Your task to perform on an android device: find photos in the google photos app Image 0: 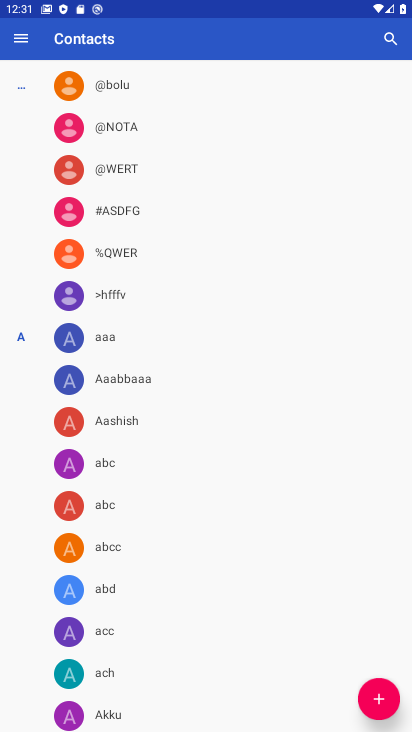
Step 0: press home button
Your task to perform on an android device: find photos in the google photos app Image 1: 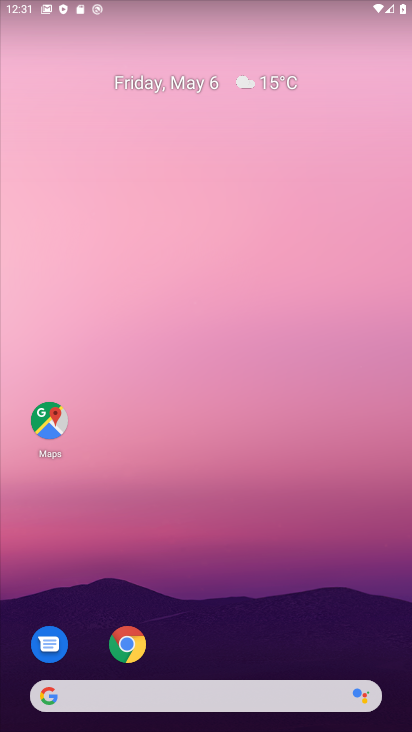
Step 1: drag from (173, 643) to (256, 289)
Your task to perform on an android device: find photos in the google photos app Image 2: 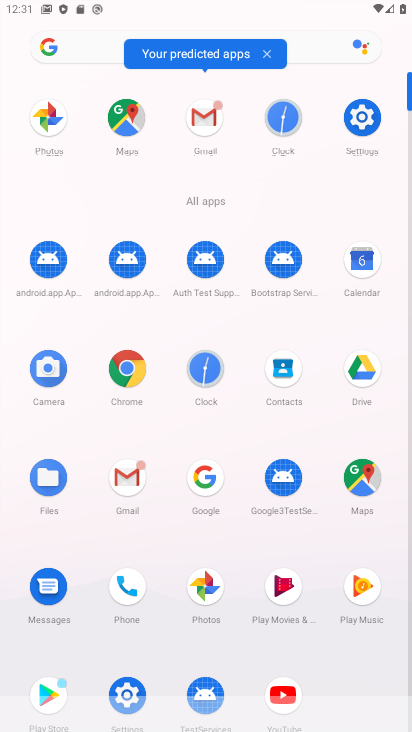
Step 2: click (215, 592)
Your task to perform on an android device: find photos in the google photos app Image 3: 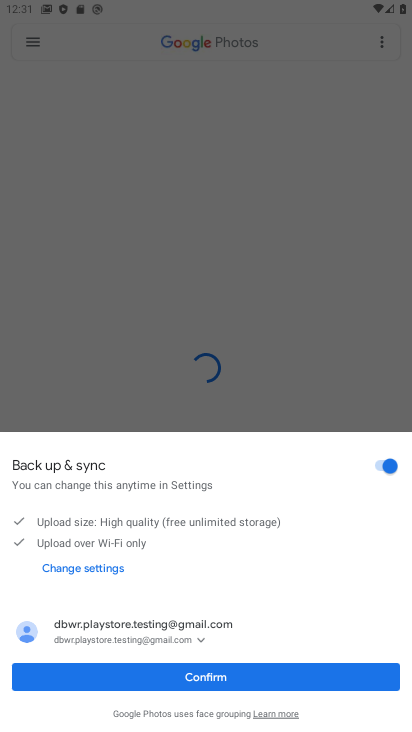
Step 3: click (220, 686)
Your task to perform on an android device: find photos in the google photos app Image 4: 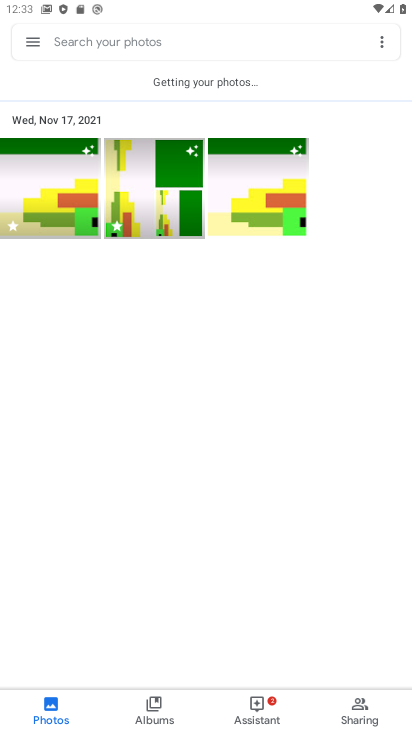
Step 4: task complete